Your task to perform on an android device: Open Chrome and go to the settings page Image 0: 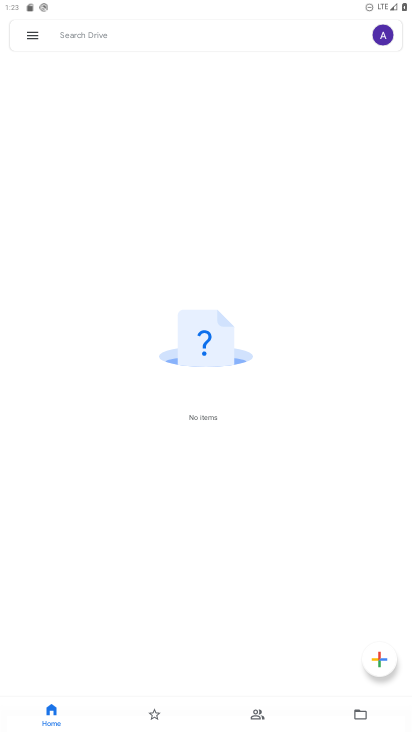
Step 0: press home button
Your task to perform on an android device: Open Chrome and go to the settings page Image 1: 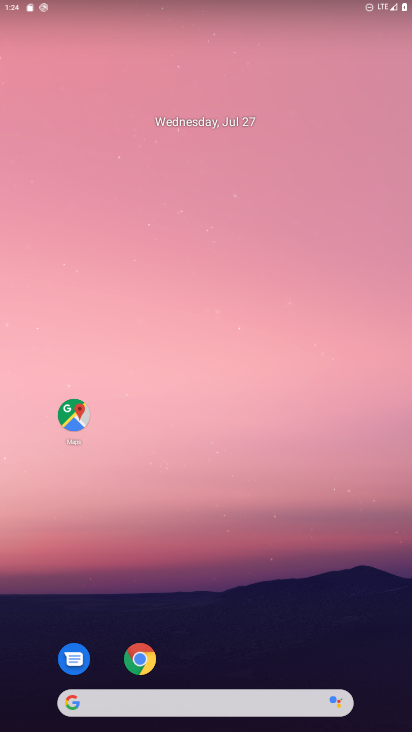
Step 1: click (142, 662)
Your task to perform on an android device: Open Chrome and go to the settings page Image 2: 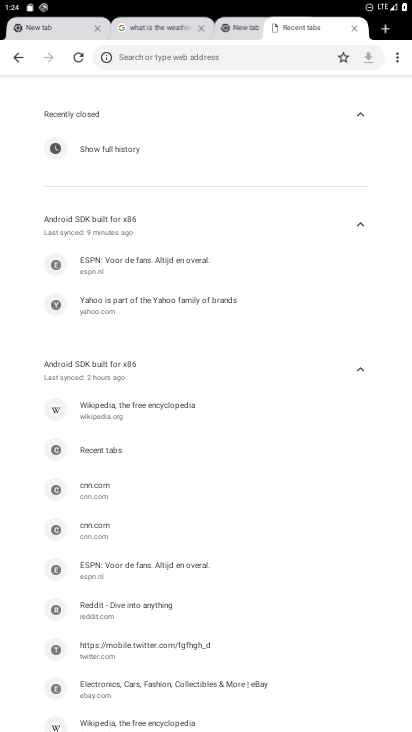
Step 2: click (399, 58)
Your task to perform on an android device: Open Chrome and go to the settings page Image 3: 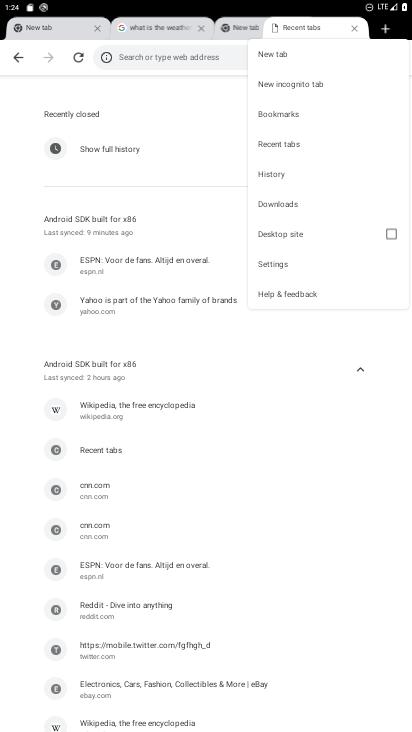
Step 3: click (291, 257)
Your task to perform on an android device: Open Chrome and go to the settings page Image 4: 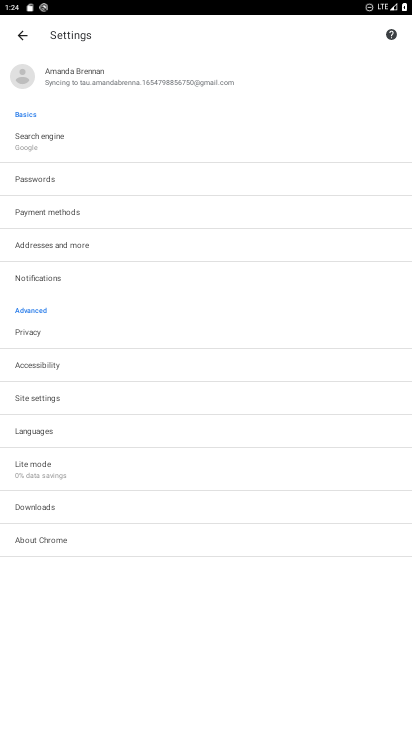
Step 4: task complete